Your task to perform on an android device: Do I have any events today? Image 0: 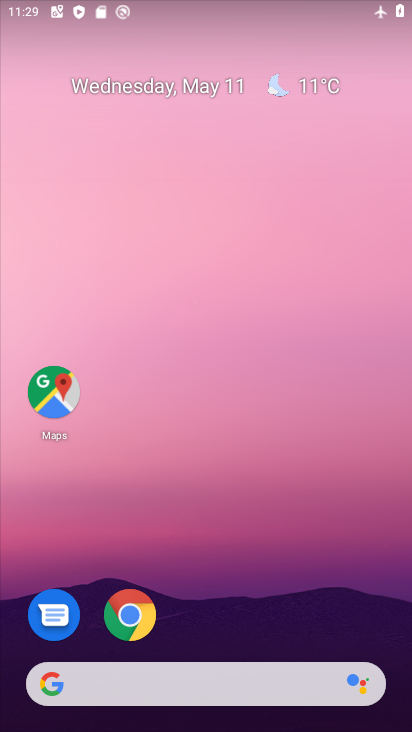
Step 0: drag from (251, 491) to (298, 126)
Your task to perform on an android device: Do I have any events today? Image 1: 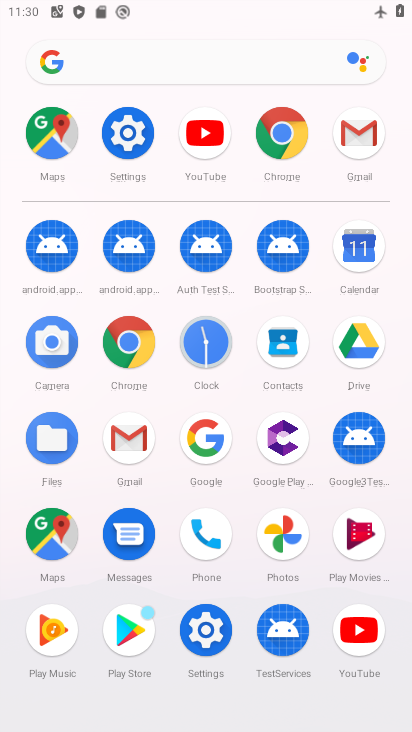
Step 1: click (349, 243)
Your task to perform on an android device: Do I have any events today? Image 2: 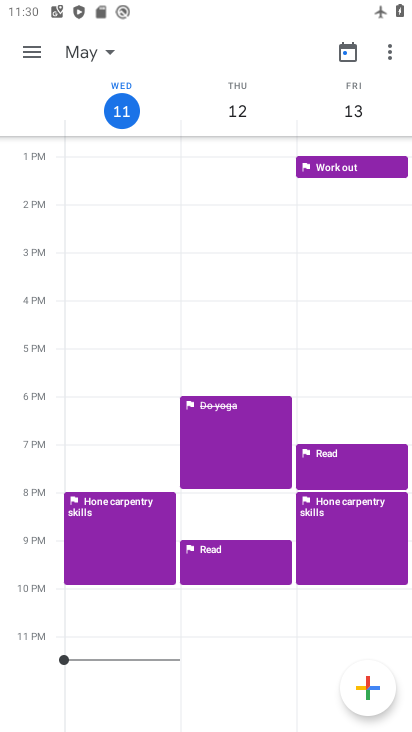
Step 2: task complete